Your task to perform on an android device: Open the phone app and click the voicemail tab. Image 0: 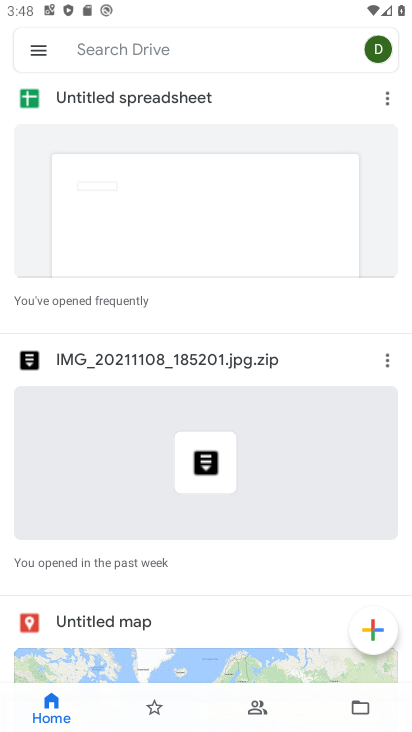
Step 0: press home button
Your task to perform on an android device: Open the phone app and click the voicemail tab. Image 1: 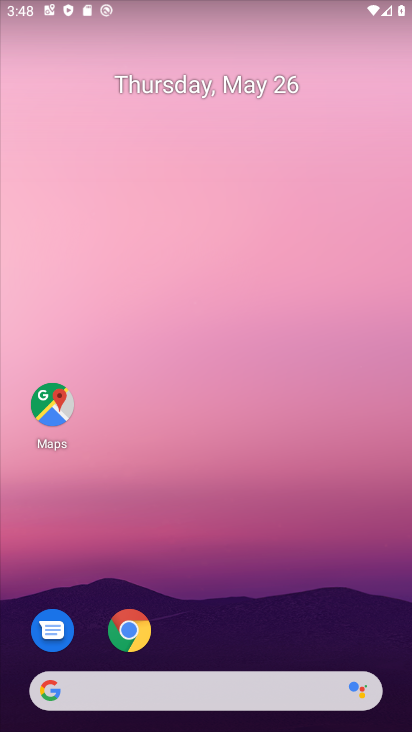
Step 1: drag from (230, 634) to (243, 143)
Your task to perform on an android device: Open the phone app and click the voicemail tab. Image 2: 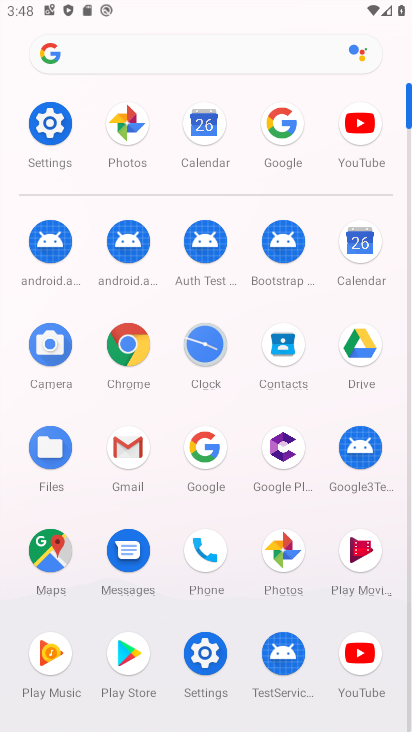
Step 2: click (201, 550)
Your task to perform on an android device: Open the phone app and click the voicemail tab. Image 3: 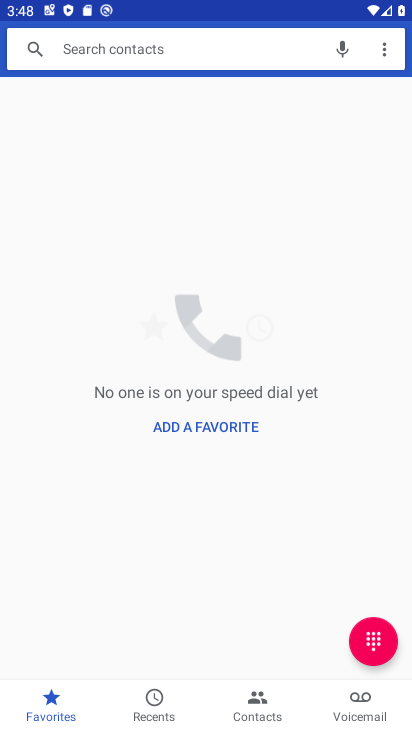
Step 3: click (364, 688)
Your task to perform on an android device: Open the phone app and click the voicemail tab. Image 4: 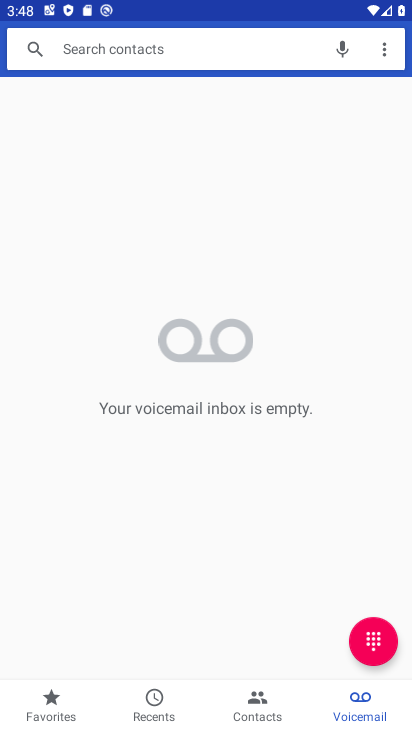
Step 4: task complete